Your task to perform on an android device: change the clock display to show seconds Image 0: 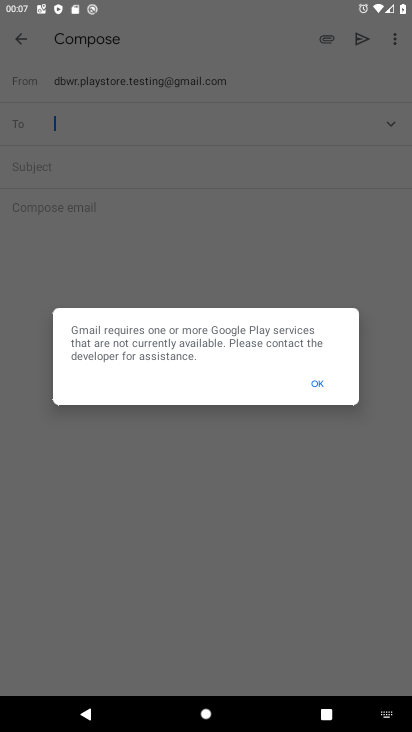
Step 0: press back button
Your task to perform on an android device: change the clock display to show seconds Image 1: 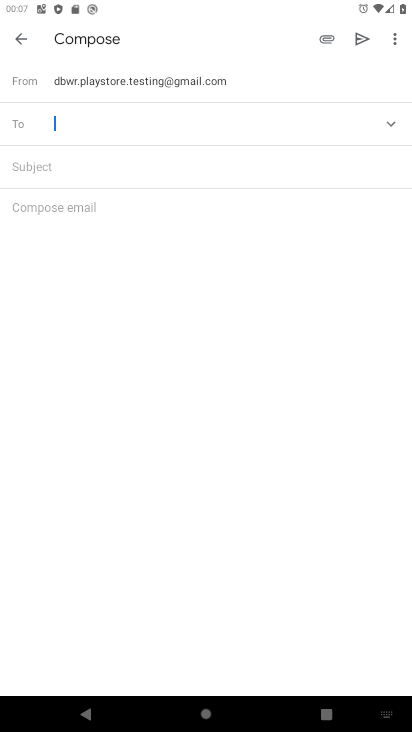
Step 1: press back button
Your task to perform on an android device: change the clock display to show seconds Image 2: 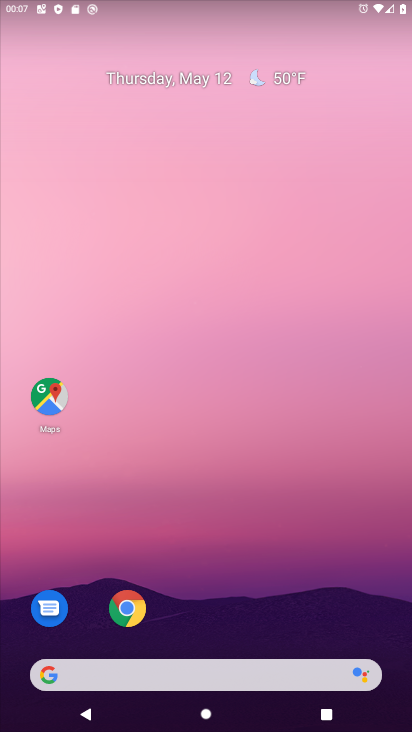
Step 2: drag from (248, 610) to (175, 85)
Your task to perform on an android device: change the clock display to show seconds Image 3: 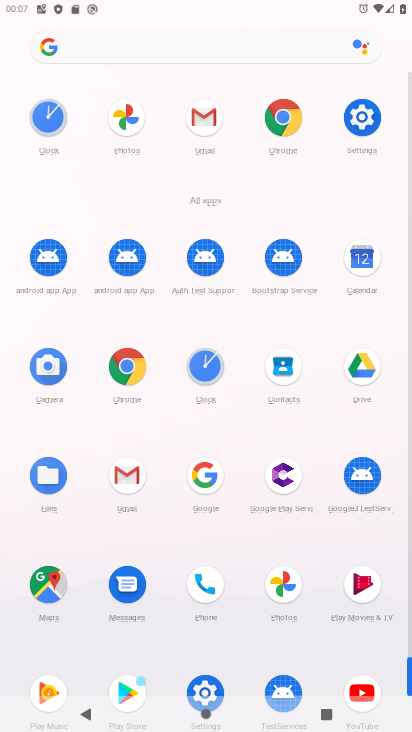
Step 3: click (46, 119)
Your task to perform on an android device: change the clock display to show seconds Image 4: 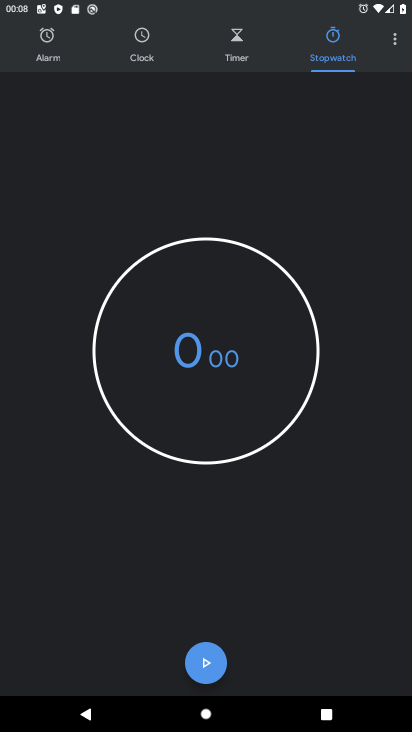
Step 4: click (395, 38)
Your task to perform on an android device: change the clock display to show seconds Image 5: 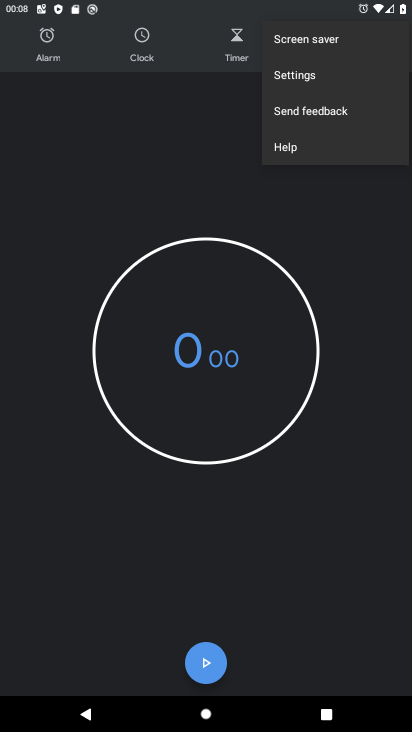
Step 5: click (304, 82)
Your task to perform on an android device: change the clock display to show seconds Image 6: 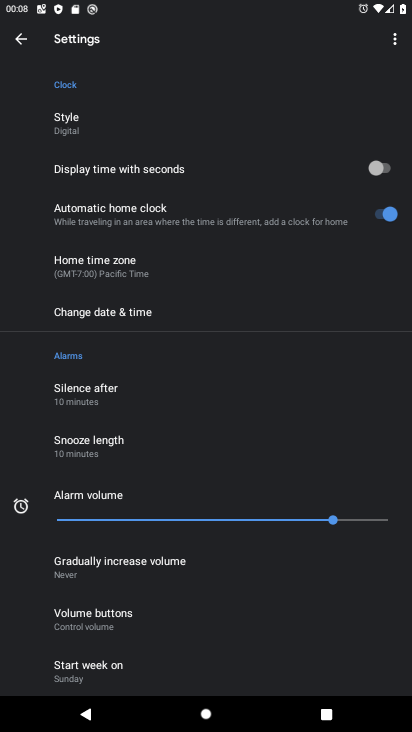
Step 6: click (389, 166)
Your task to perform on an android device: change the clock display to show seconds Image 7: 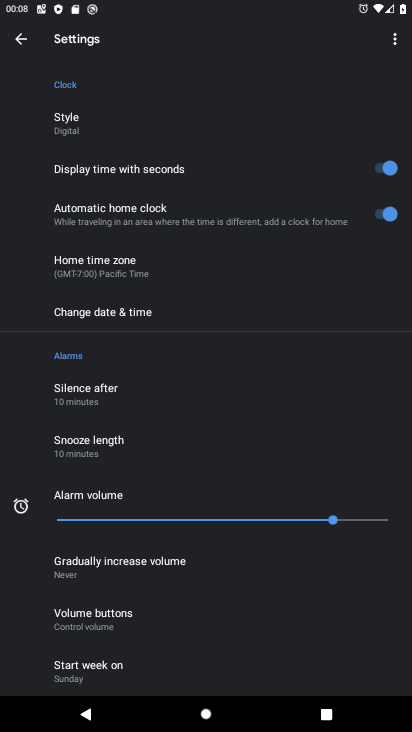
Step 7: task complete